Your task to perform on an android device: Open eBay Image 0: 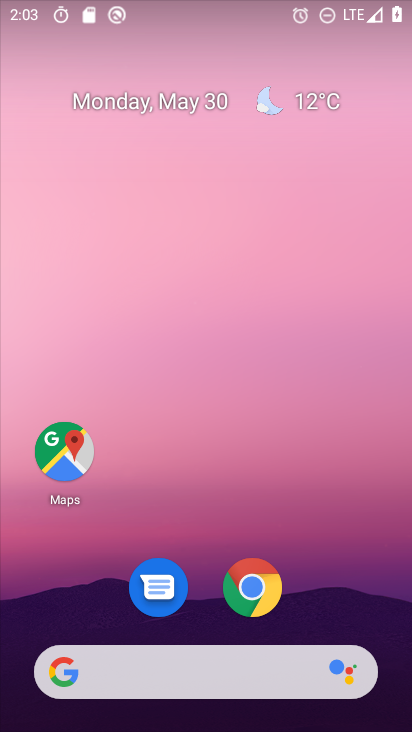
Step 0: click (254, 591)
Your task to perform on an android device: Open eBay Image 1: 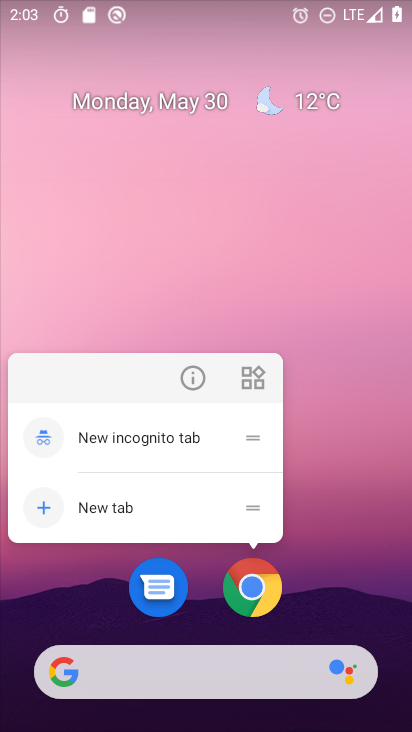
Step 1: click (260, 582)
Your task to perform on an android device: Open eBay Image 2: 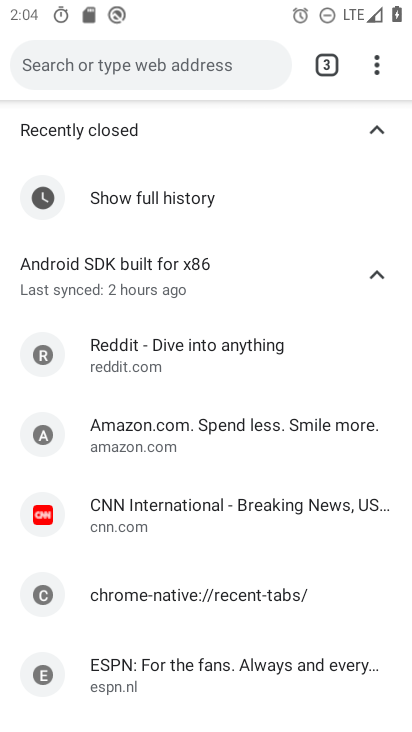
Step 2: click (250, 65)
Your task to perform on an android device: Open eBay Image 3: 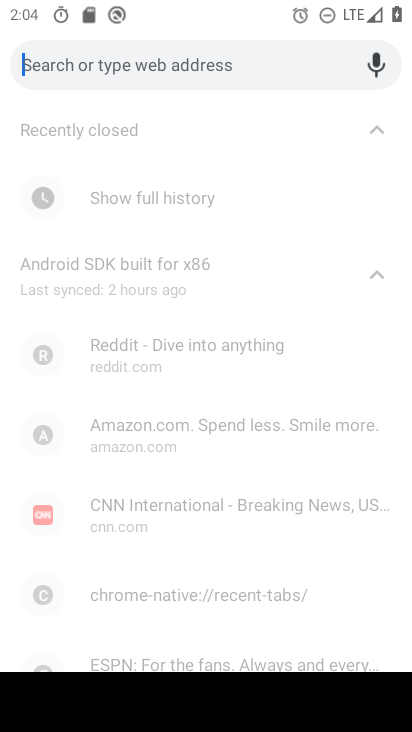
Step 3: type "ebay"
Your task to perform on an android device: Open eBay Image 4: 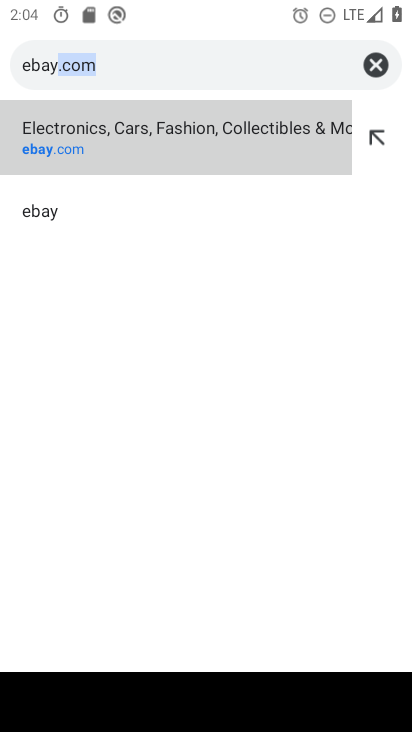
Step 4: click (73, 147)
Your task to perform on an android device: Open eBay Image 5: 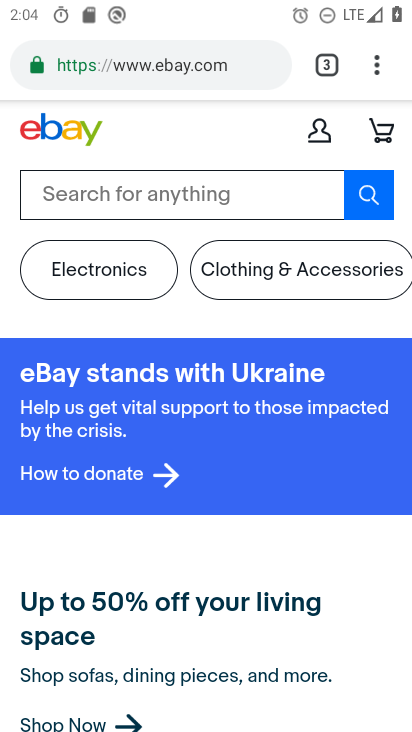
Step 5: task complete